Your task to perform on an android device: check data usage Image 0: 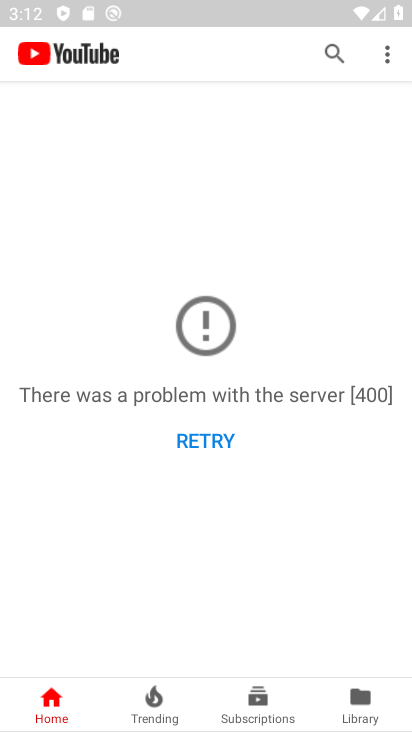
Step 0: drag from (239, 14) to (195, 553)
Your task to perform on an android device: check data usage Image 1: 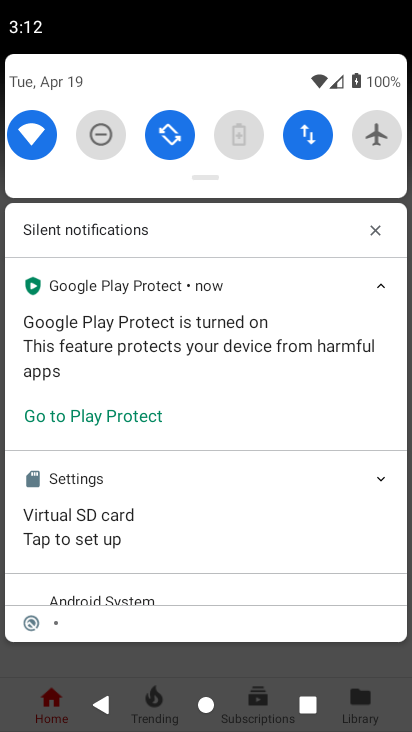
Step 1: drag from (198, 69) to (147, 496)
Your task to perform on an android device: check data usage Image 2: 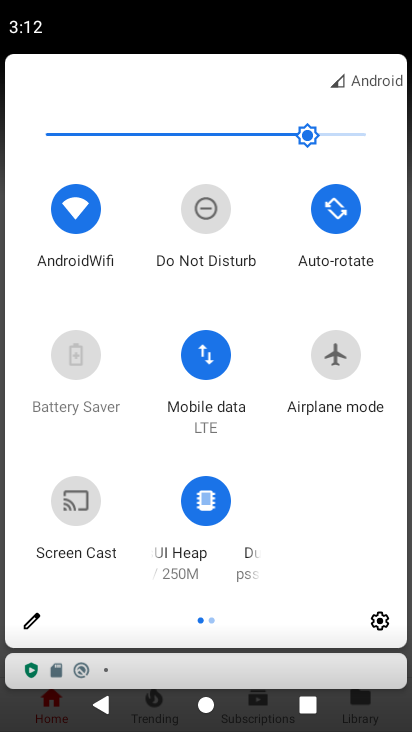
Step 2: click (380, 620)
Your task to perform on an android device: check data usage Image 3: 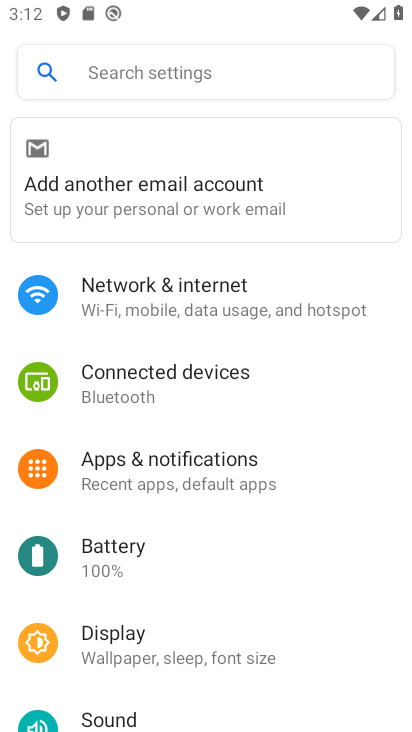
Step 3: click (215, 315)
Your task to perform on an android device: check data usage Image 4: 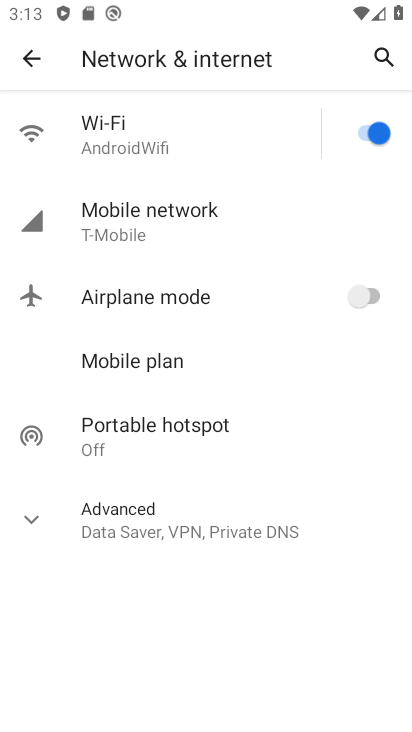
Step 4: click (150, 245)
Your task to perform on an android device: check data usage Image 5: 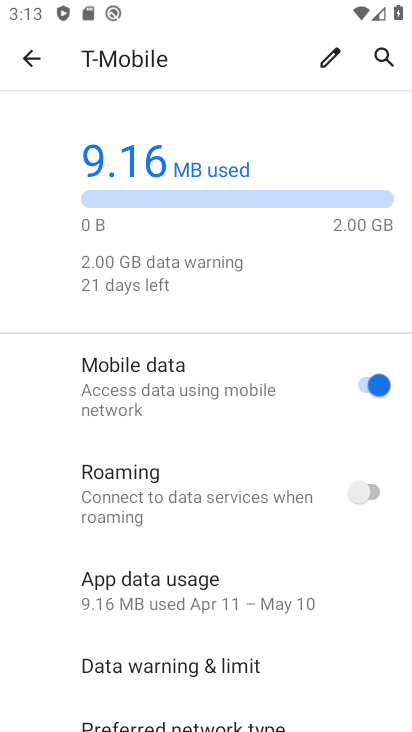
Step 5: task complete